Your task to perform on an android device: Go to notification settings Image 0: 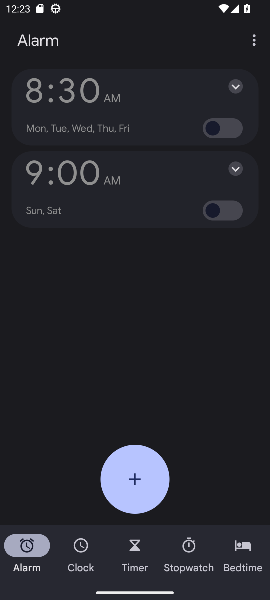
Step 0: press home button
Your task to perform on an android device: Go to notification settings Image 1: 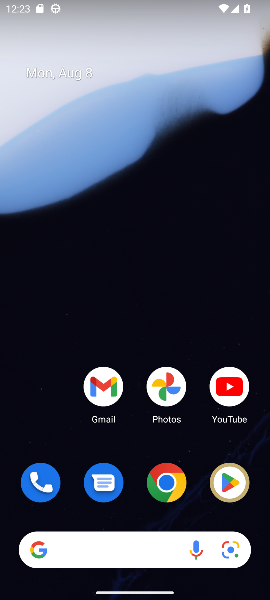
Step 1: drag from (106, 547) to (134, 45)
Your task to perform on an android device: Go to notification settings Image 2: 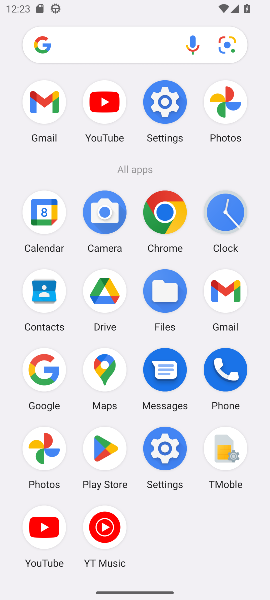
Step 2: click (159, 110)
Your task to perform on an android device: Go to notification settings Image 3: 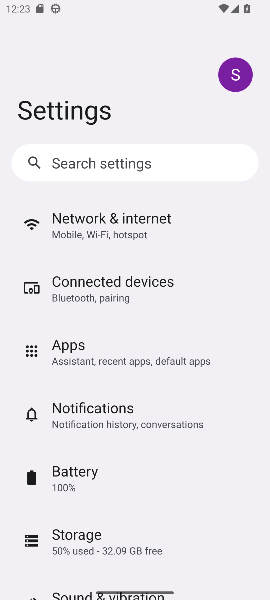
Step 3: click (107, 424)
Your task to perform on an android device: Go to notification settings Image 4: 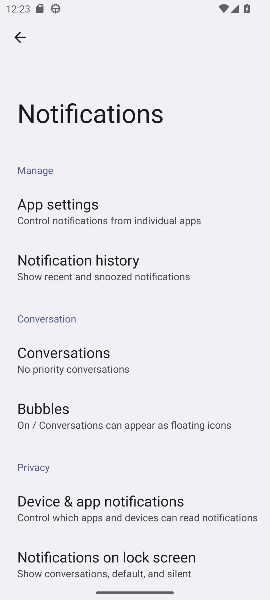
Step 4: task complete